Your task to perform on an android device: turn notification dots off Image 0: 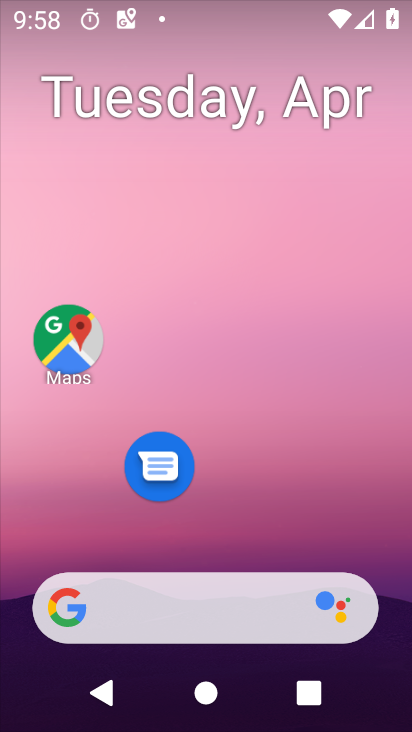
Step 0: drag from (323, 495) to (316, 133)
Your task to perform on an android device: turn notification dots off Image 1: 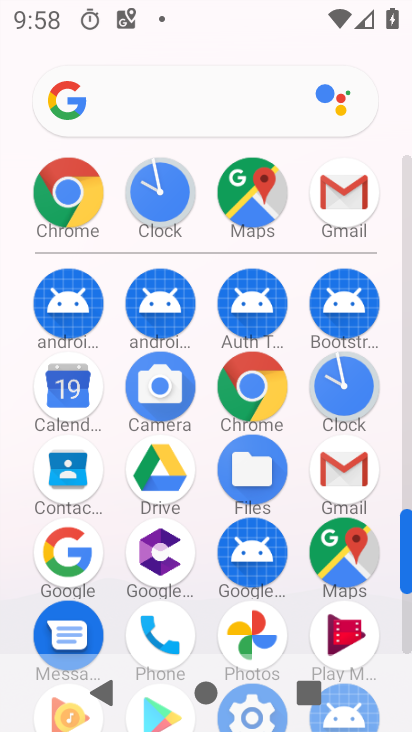
Step 1: click (404, 613)
Your task to perform on an android device: turn notification dots off Image 2: 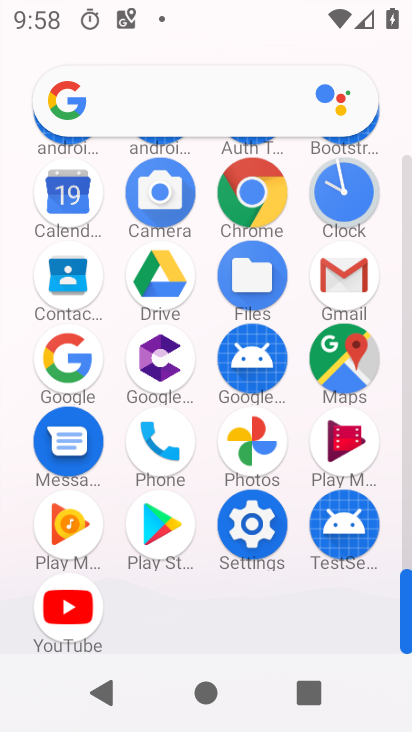
Step 2: click (279, 528)
Your task to perform on an android device: turn notification dots off Image 3: 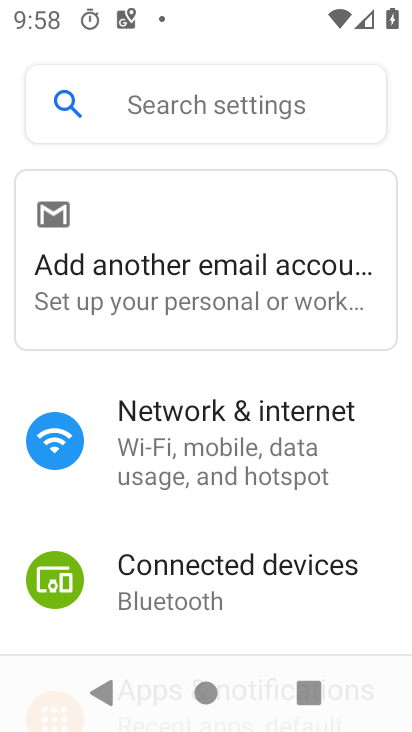
Step 3: drag from (243, 510) to (239, 239)
Your task to perform on an android device: turn notification dots off Image 4: 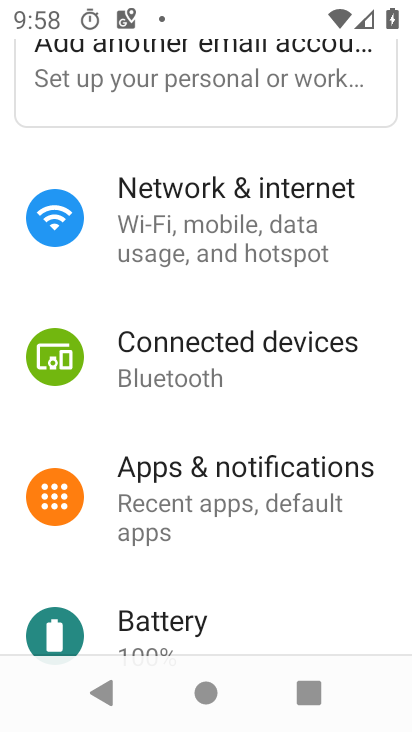
Step 4: click (276, 481)
Your task to perform on an android device: turn notification dots off Image 5: 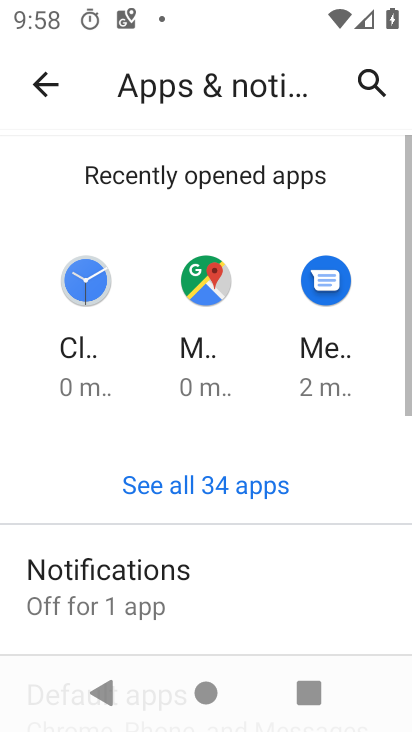
Step 5: drag from (266, 548) to (248, 343)
Your task to perform on an android device: turn notification dots off Image 6: 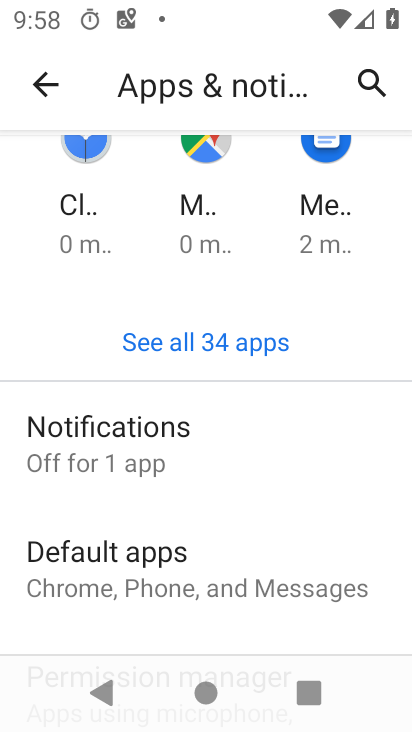
Step 6: drag from (283, 511) to (263, 265)
Your task to perform on an android device: turn notification dots off Image 7: 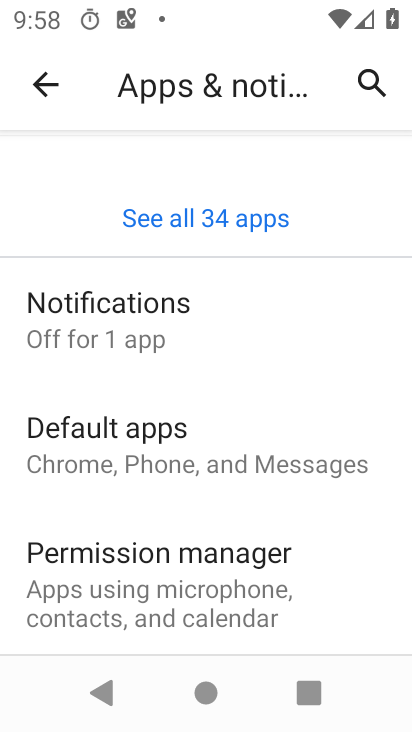
Step 7: click (182, 300)
Your task to perform on an android device: turn notification dots off Image 8: 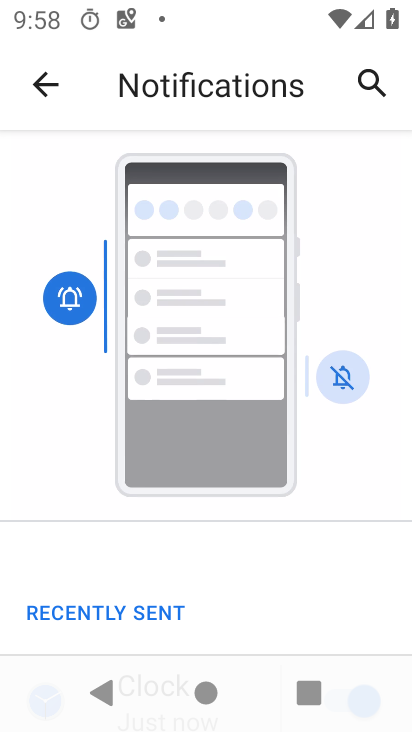
Step 8: drag from (276, 529) to (268, 240)
Your task to perform on an android device: turn notification dots off Image 9: 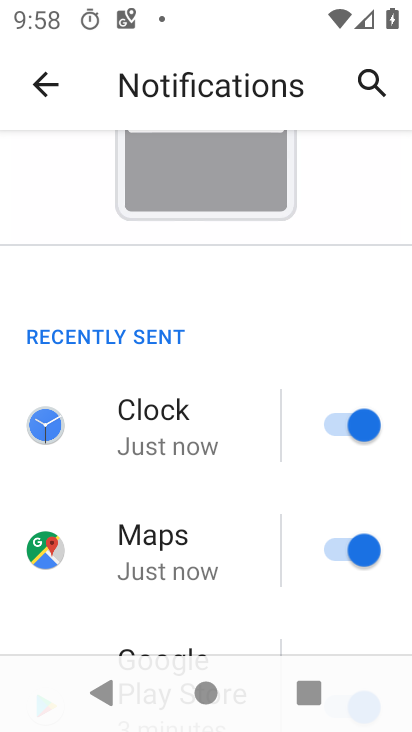
Step 9: drag from (226, 533) to (225, 376)
Your task to perform on an android device: turn notification dots off Image 10: 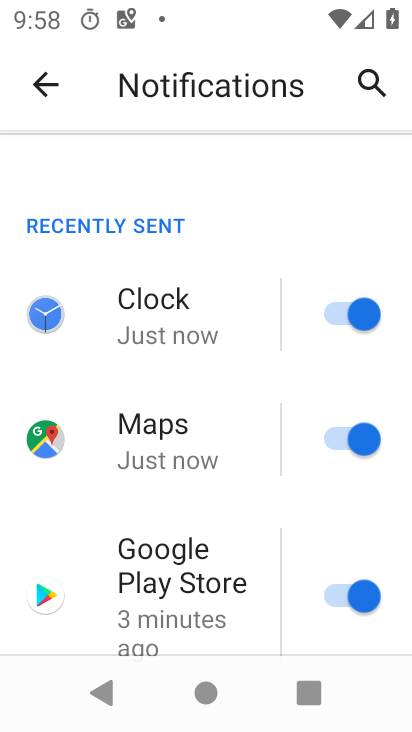
Step 10: drag from (237, 555) to (237, 327)
Your task to perform on an android device: turn notification dots off Image 11: 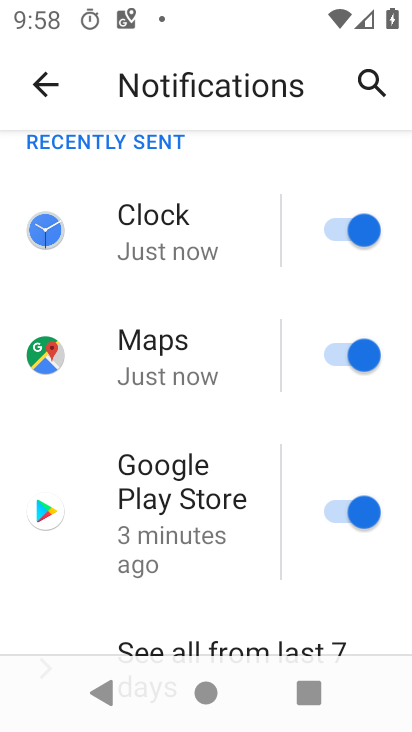
Step 11: drag from (210, 612) to (200, 120)
Your task to perform on an android device: turn notification dots off Image 12: 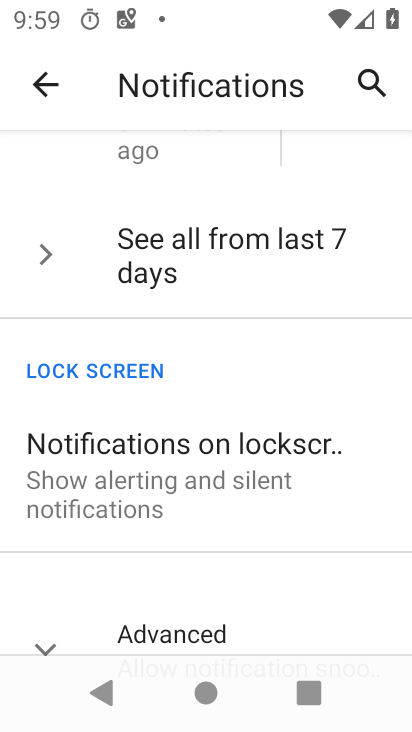
Step 12: drag from (230, 579) to (247, 347)
Your task to perform on an android device: turn notification dots off Image 13: 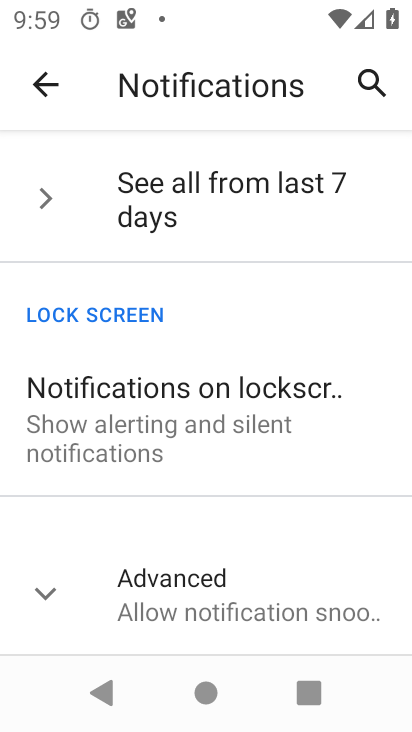
Step 13: click (203, 586)
Your task to perform on an android device: turn notification dots off Image 14: 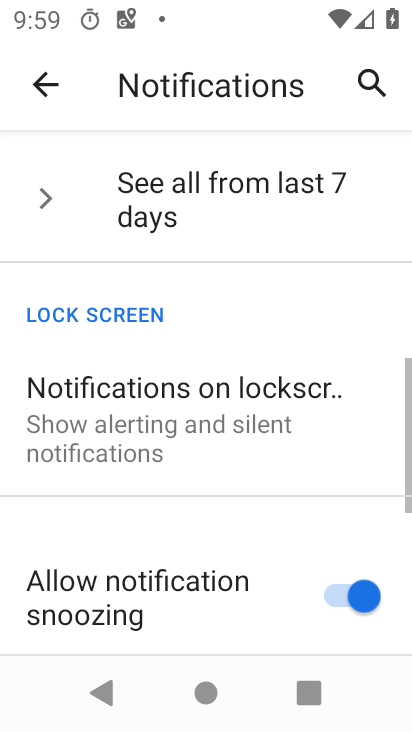
Step 14: drag from (316, 484) to (314, 9)
Your task to perform on an android device: turn notification dots off Image 15: 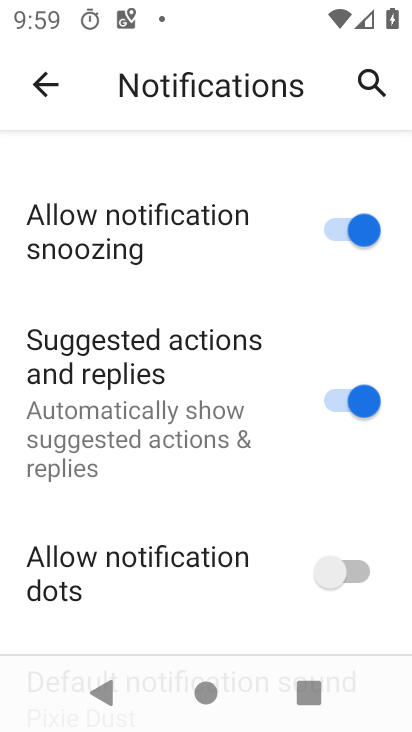
Step 15: click (338, 568)
Your task to perform on an android device: turn notification dots off Image 16: 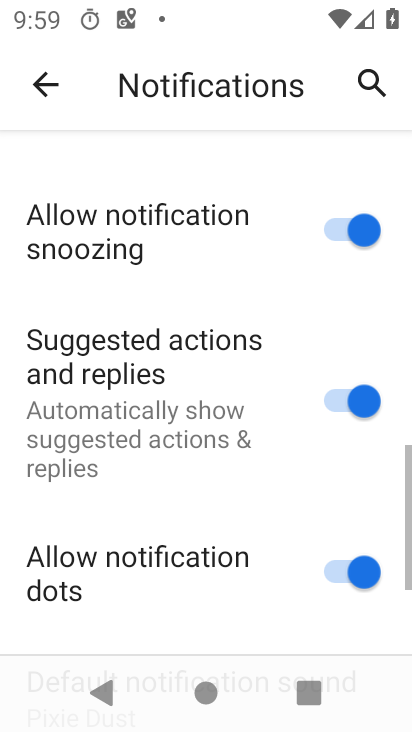
Step 16: click (338, 568)
Your task to perform on an android device: turn notification dots off Image 17: 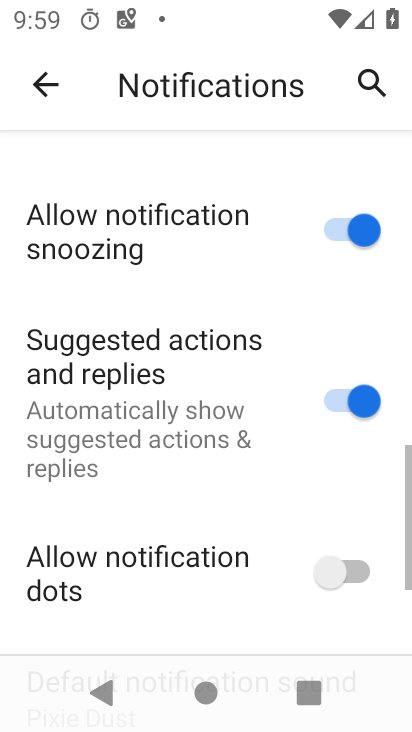
Step 17: task complete